Your task to perform on an android device: Search for "macbook" on bestbuy.com, select the first entry, and add it to the cart. Image 0: 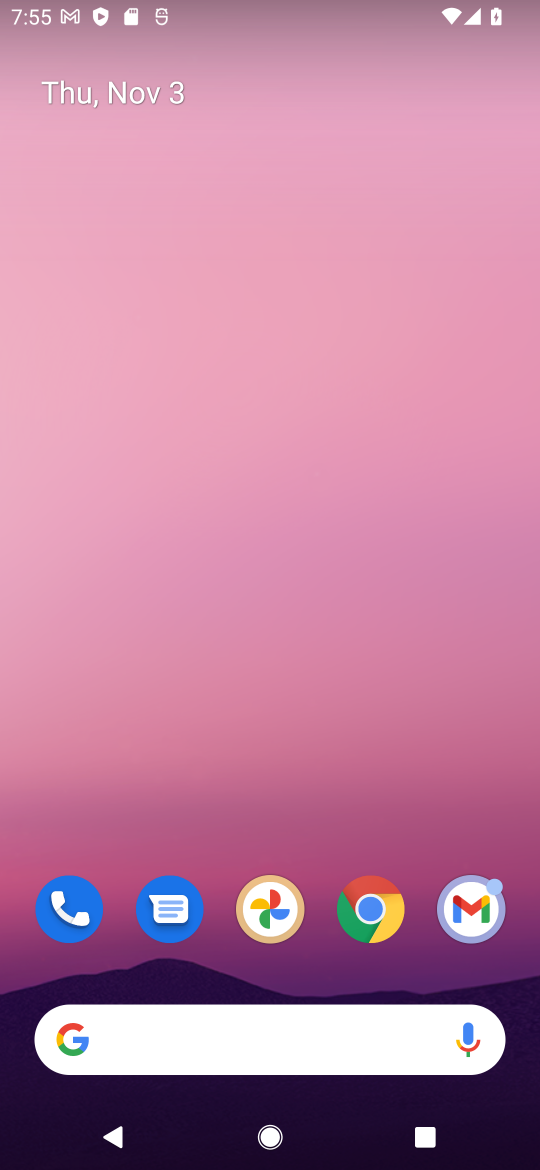
Step 0: drag from (245, 825) to (232, 216)
Your task to perform on an android device: Search for "macbook" on bestbuy.com, select the first entry, and add it to the cart. Image 1: 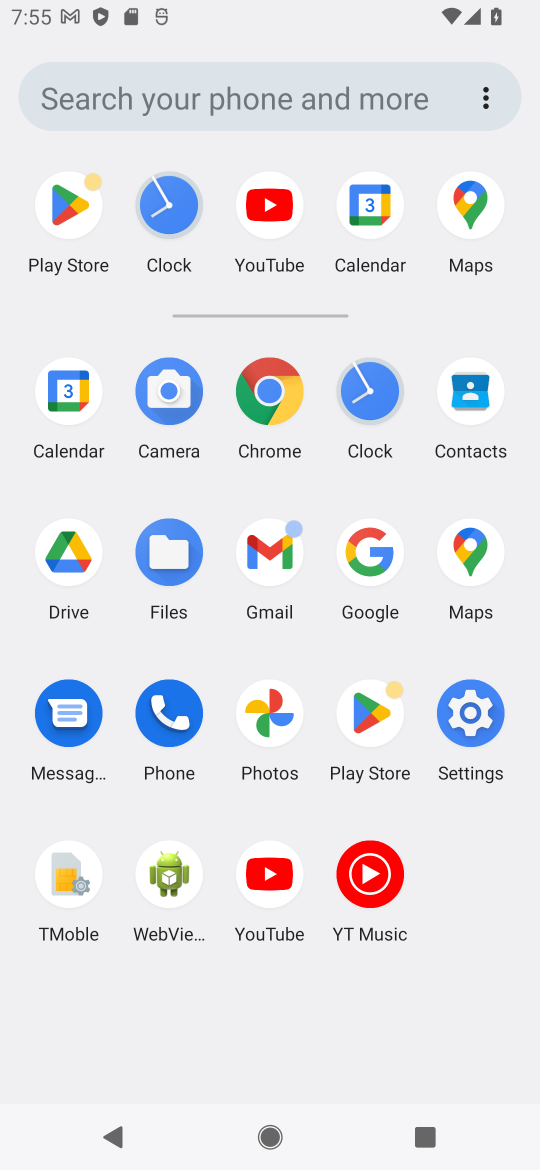
Step 1: click (377, 561)
Your task to perform on an android device: Search for "macbook" on bestbuy.com, select the first entry, and add it to the cart. Image 2: 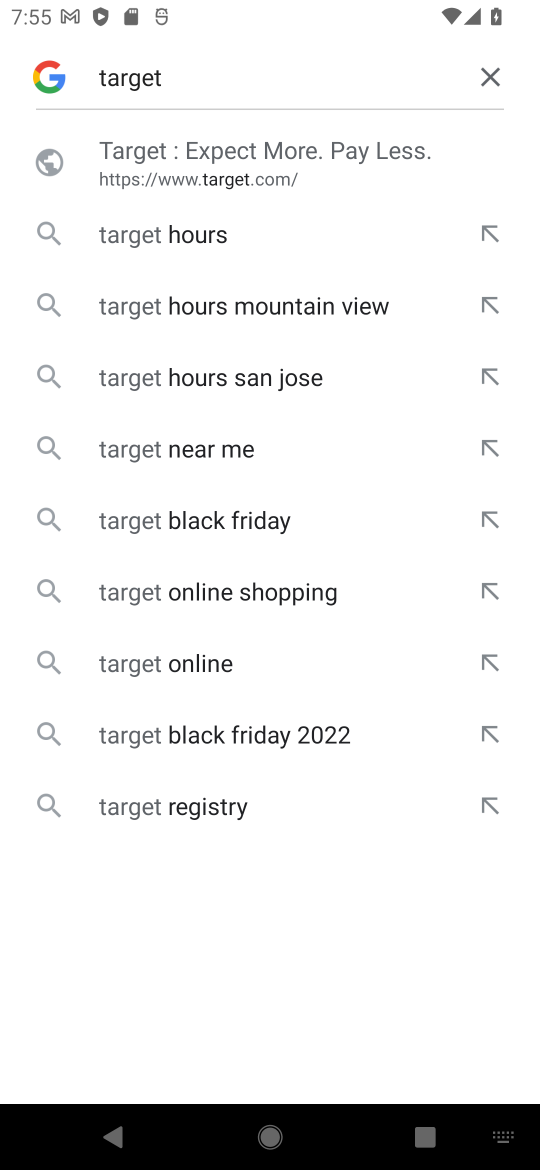
Step 2: click (479, 70)
Your task to perform on an android device: Search for "macbook" on bestbuy.com, select the first entry, and add it to the cart. Image 3: 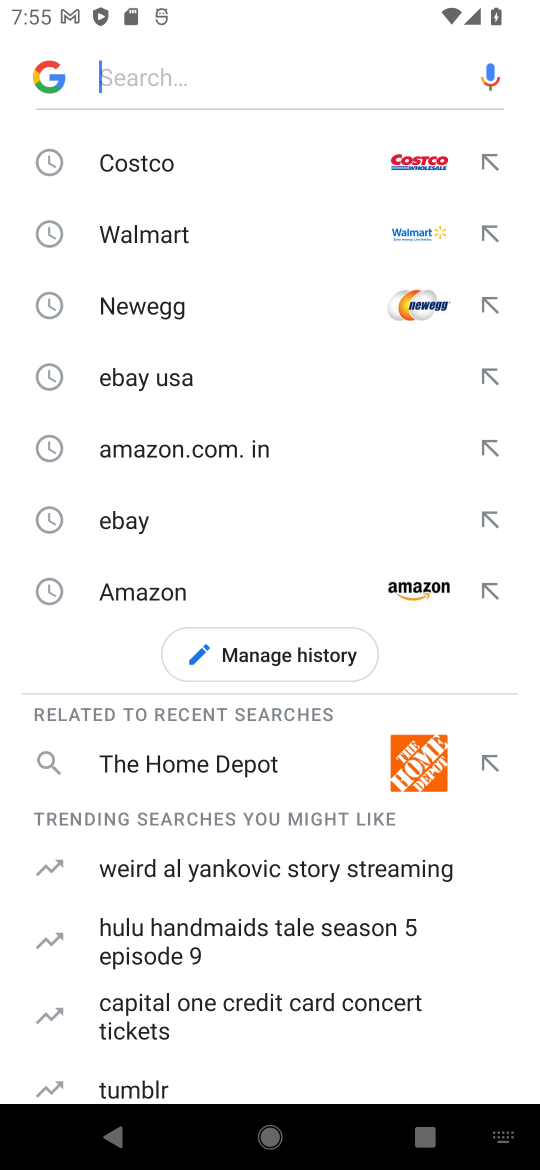
Step 3: click (261, 63)
Your task to perform on an android device: Search for "macbook" on bestbuy.com, select the first entry, and add it to the cart. Image 4: 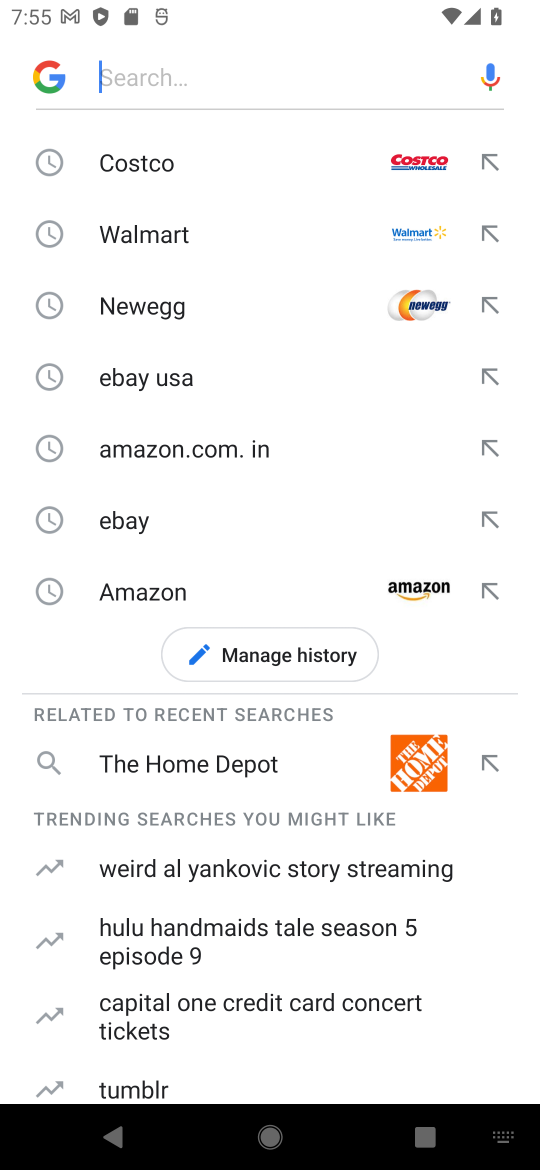
Step 4: type "bestbuy "
Your task to perform on an android device: Search for "macbook" on bestbuy.com, select the first entry, and add it to the cart. Image 5: 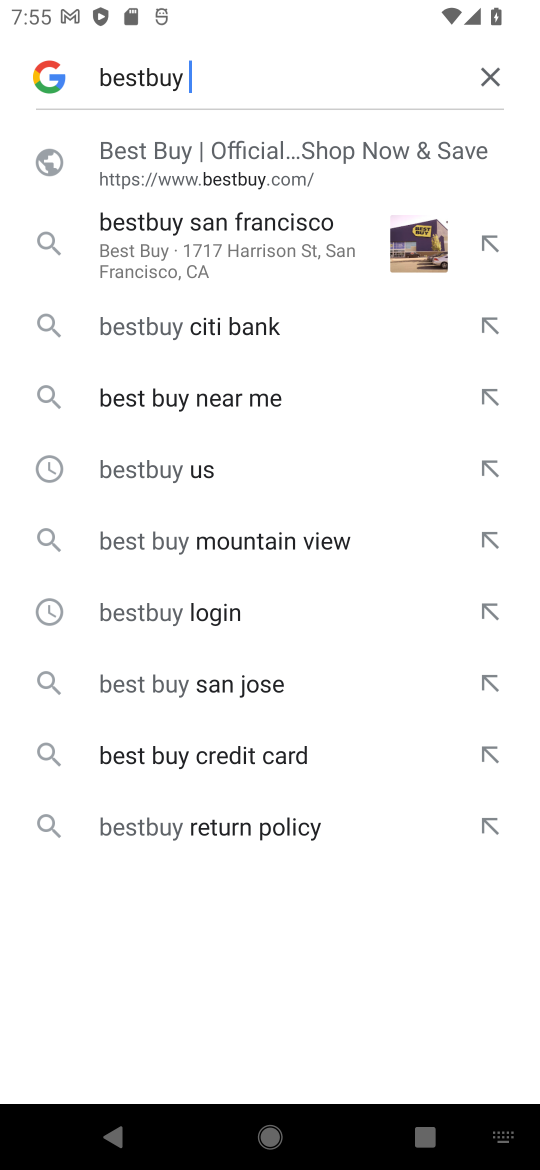
Step 5: click (233, 145)
Your task to perform on an android device: Search for "macbook" on bestbuy.com, select the first entry, and add it to the cart. Image 6: 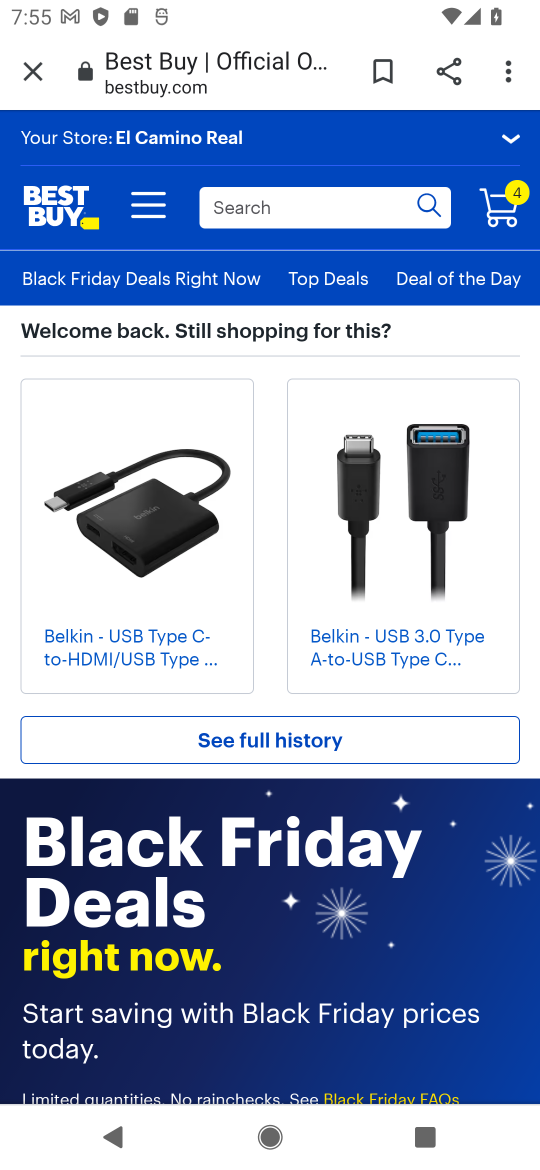
Step 6: click (281, 195)
Your task to perform on an android device: Search for "macbook" on bestbuy.com, select the first entry, and add it to the cart. Image 7: 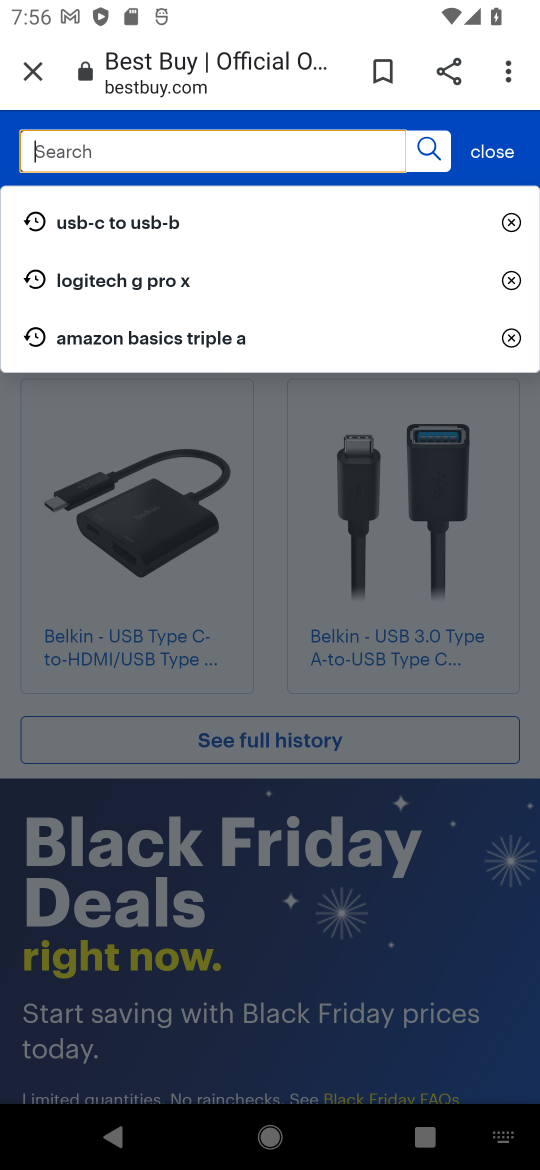
Step 7: type "macbook "
Your task to perform on an android device: Search for "macbook" on bestbuy.com, select the first entry, and add it to the cart. Image 8: 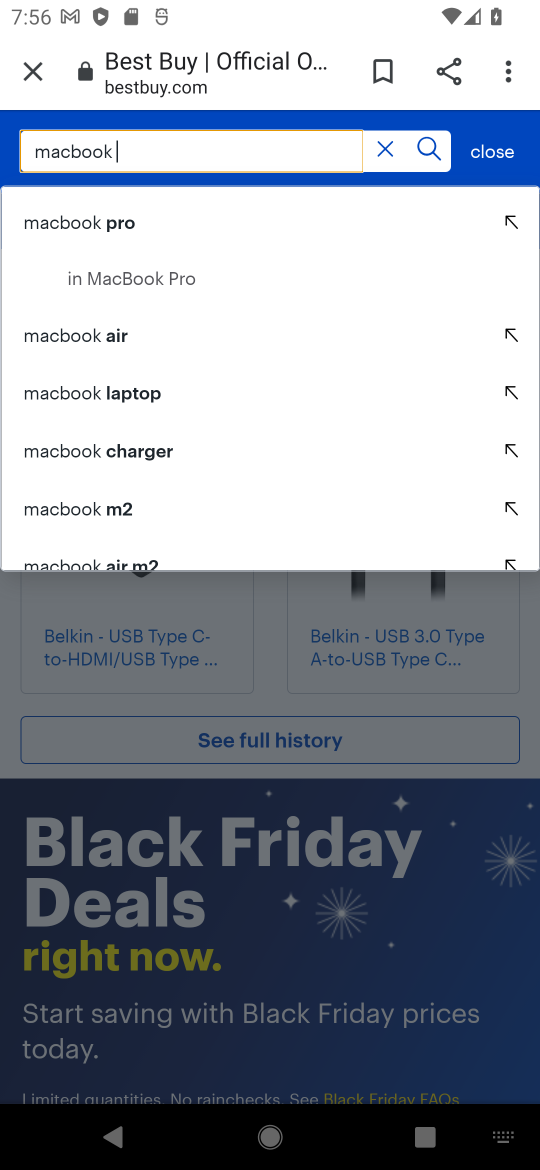
Step 8: click (33, 223)
Your task to perform on an android device: Search for "macbook" on bestbuy.com, select the first entry, and add it to the cart. Image 9: 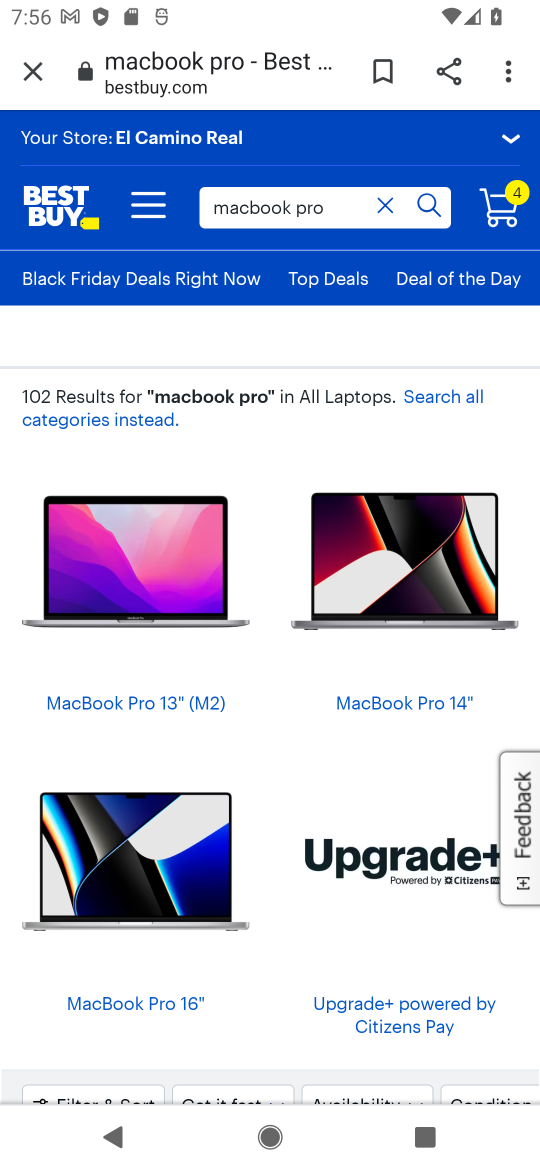
Step 9: click (148, 607)
Your task to perform on an android device: Search for "macbook" on bestbuy.com, select the first entry, and add it to the cart. Image 10: 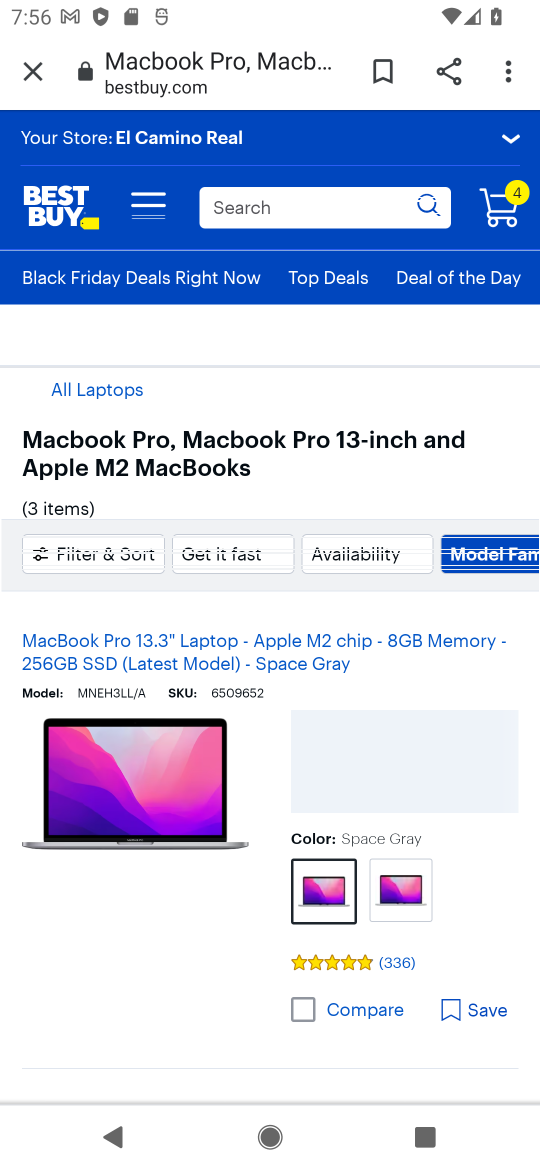
Step 10: drag from (323, 944) to (319, 388)
Your task to perform on an android device: Search for "macbook" on bestbuy.com, select the first entry, and add it to the cart. Image 11: 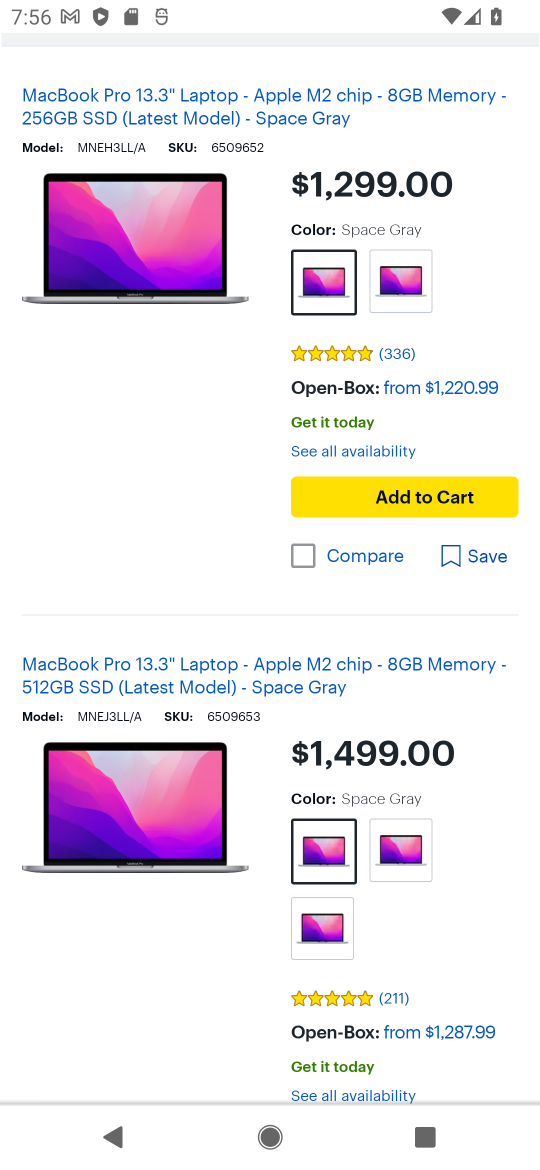
Step 11: click (402, 417)
Your task to perform on an android device: Search for "macbook" on bestbuy.com, select the first entry, and add it to the cart. Image 12: 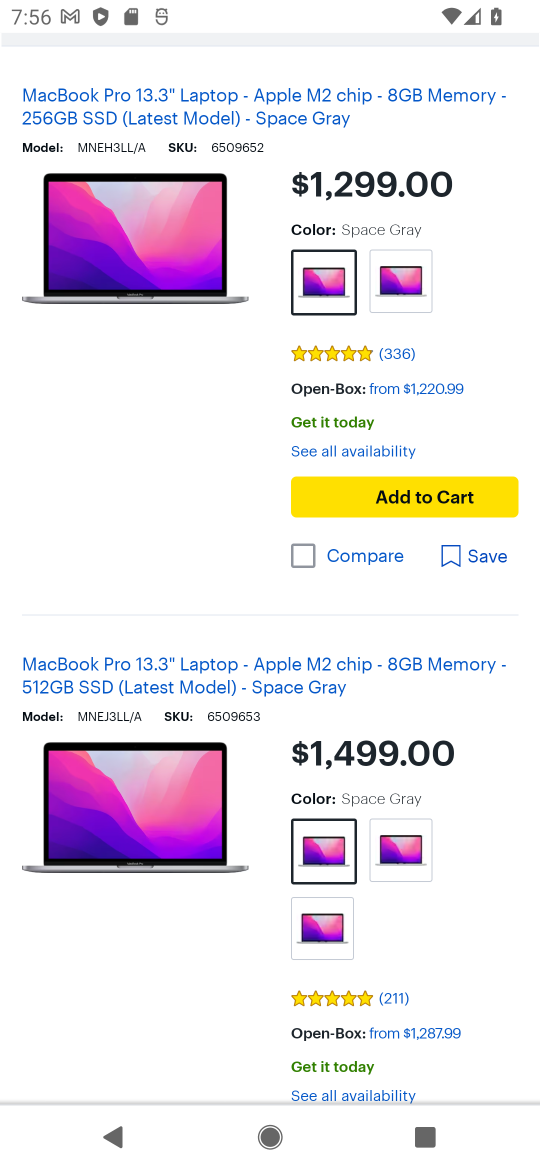
Step 12: click (435, 492)
Your task to perform on an android device: Search for "macbook" on bestbuy.com, select the first entry, and add it to the cart. Image 13: 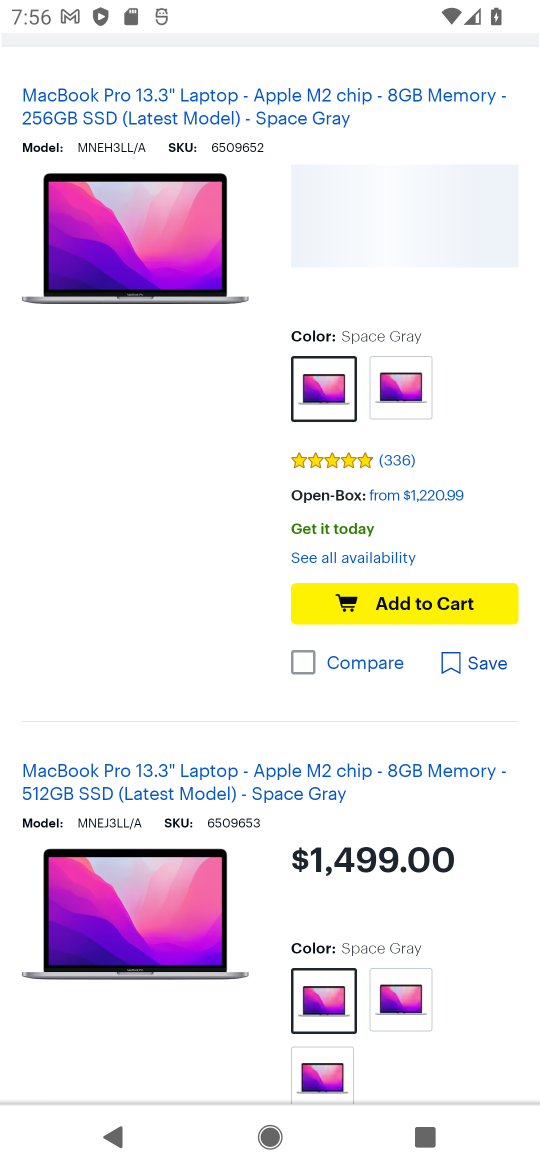
Step 13: task complete